Your task to perform on an android device: change your default location settings in chrome Image 0: 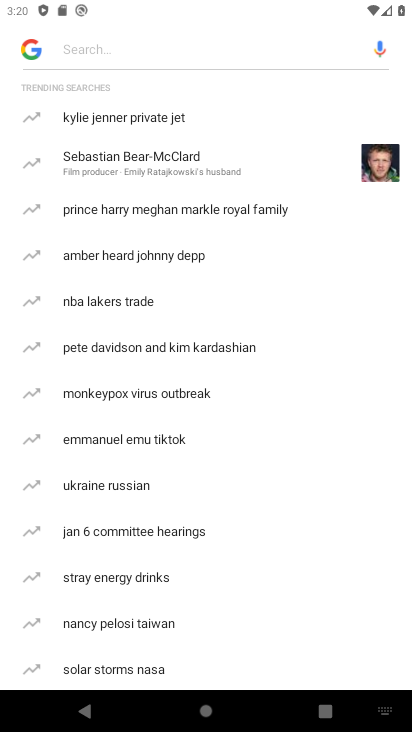
Step 0: press home button
Your task to perform on an android device: change your default location settings in chrome Image 1: 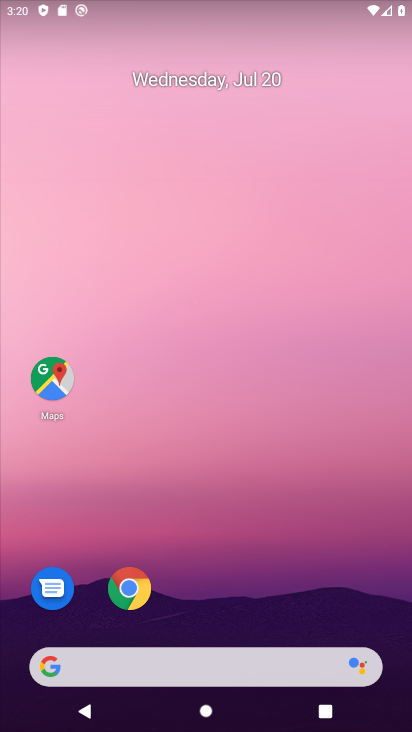
Step 1: drag from (288, 499) to (284, 117)
Your task to perform on an android device: change your default location settings in chrome Image 2: 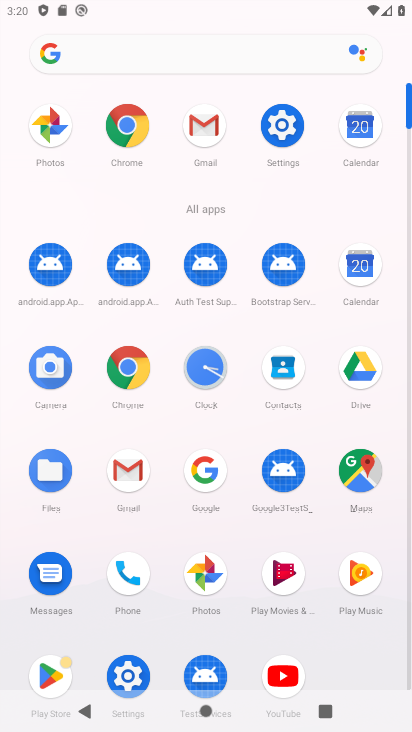
Step 2: click (129, 362)
Your task to perform on an android device: change your default location settings in chrome Image 3: 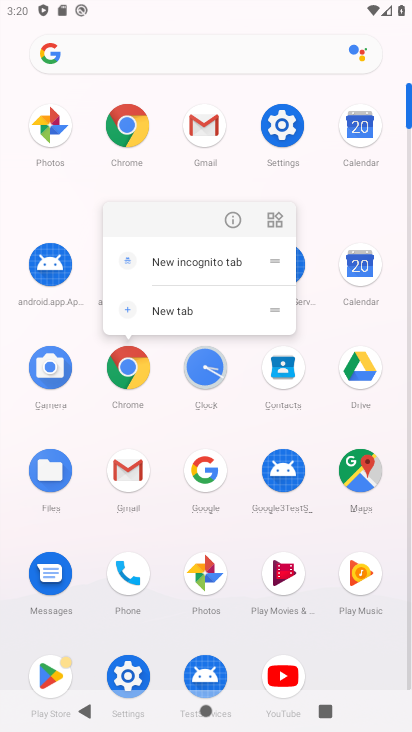
Step 3: click (132, 376)
Your task to perform on an android device: change your default location settings in chrome Image 4: 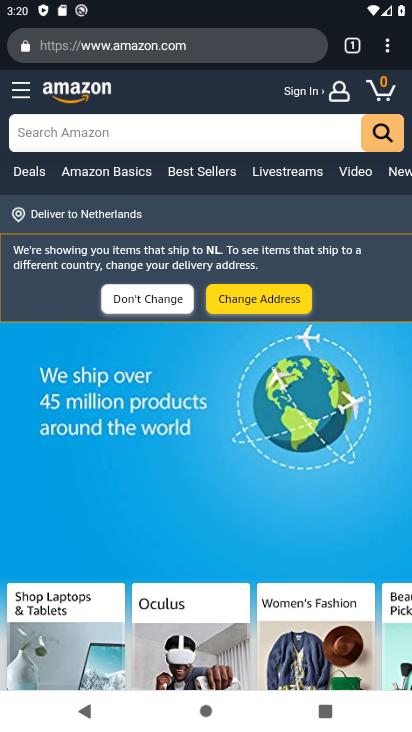
Step 4: drag from (392, 48) to (230, 547)
Your task to perform on an android device: change your default location settings in chrome Image 5: 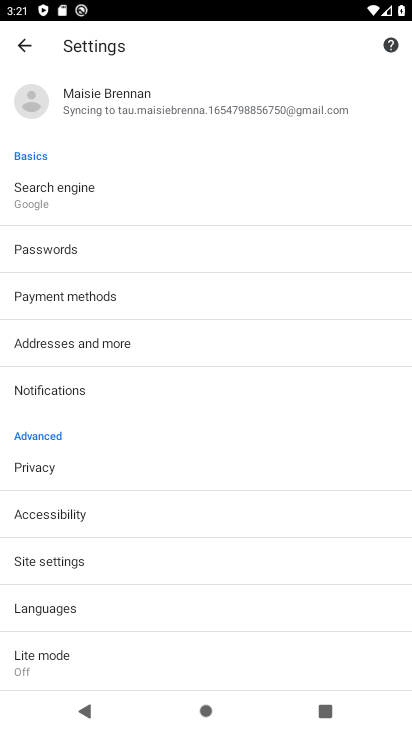
Step 5: drag from (169, 594) to (213, 329)
Your task to perform on an android device: change your default location settings in chrome Image 6: 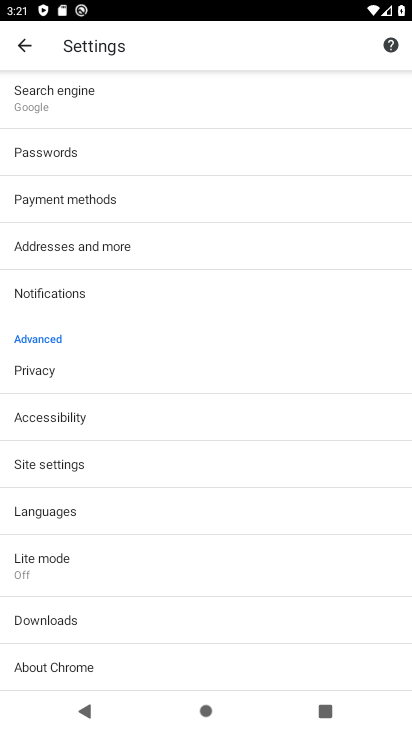
Step 6: click (74, 465)
Your task to perform on an android device: change your default location settings in chrome Image 7: 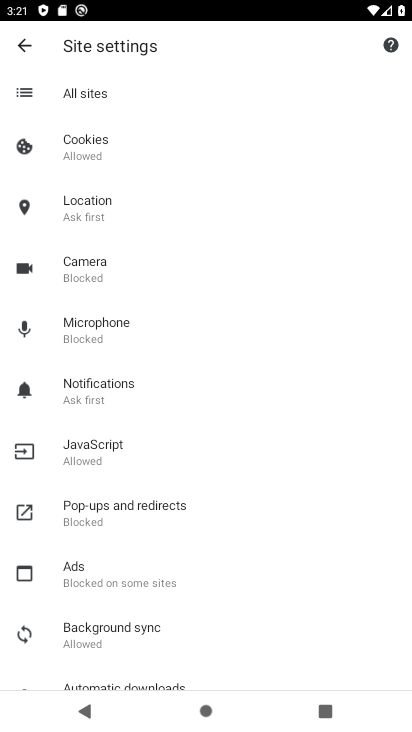
Step 7: click (105, 210)
Your task to perform on an android device: change your default location settings in chrome Image 8: 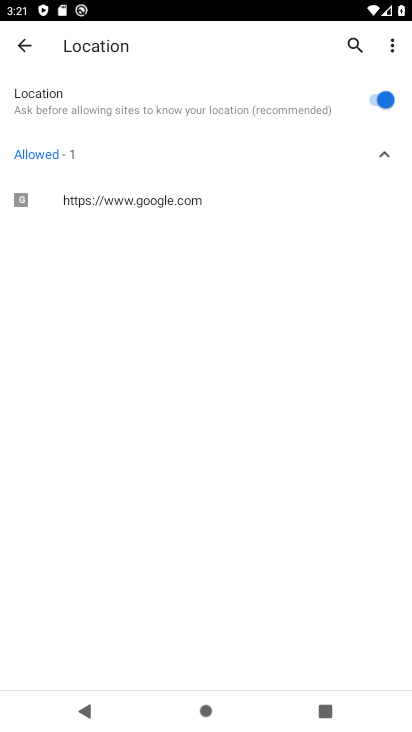
Step 8: click (376, 102)
Your task to perform on an android device: change your default location settings in chrome Image 9: 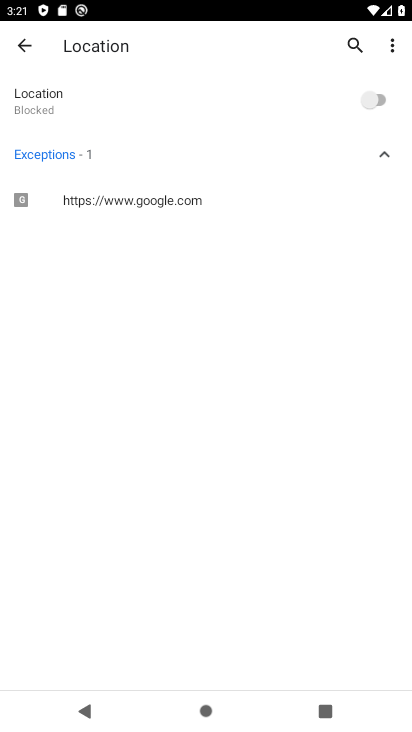
Step 9: task complete